Your task to perform on an android device: turn on sleep mode Image 0: 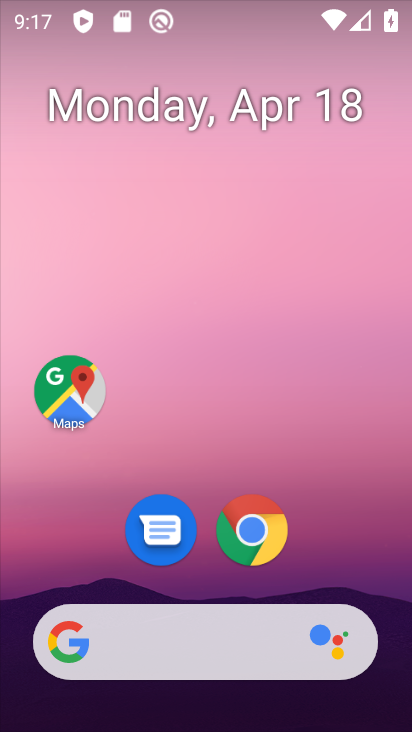
Step 0: drag from (385, 591) to (399, 97)
Your task to perform on an android device: turn on sleep mode Image 1: 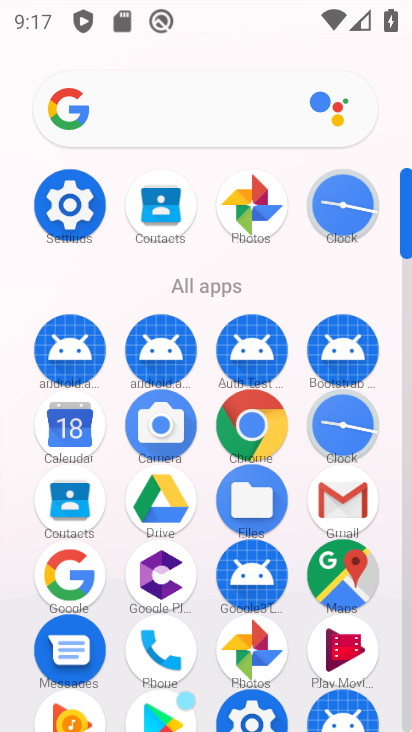
Step 1: click (77, 209)
Your task to perform on an android device: turn on sleep mode Image 2: 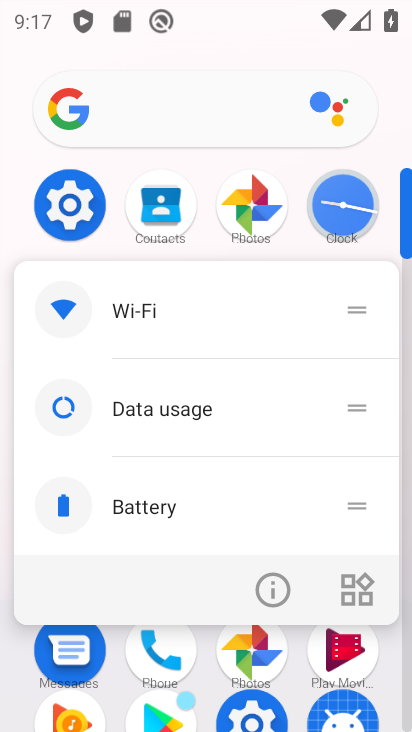
Step 2: click (80, 198)
Your task to perform on an android device: turn on sleep mode Image 3: 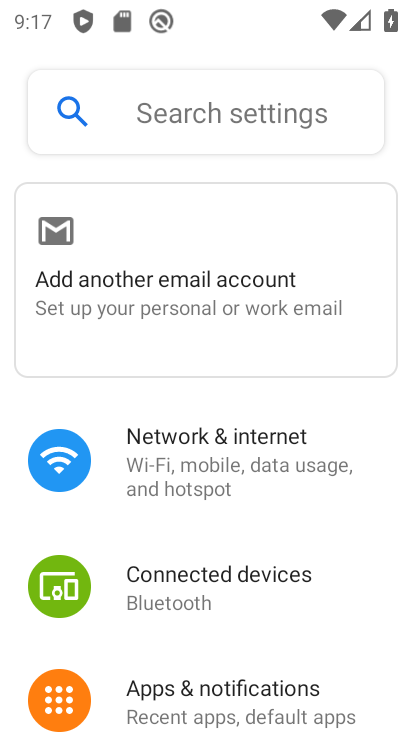
Step 3: drag from (379, 663) to (364, 311)
Your task to perform on an android device: turn on sleep mode Image 4: 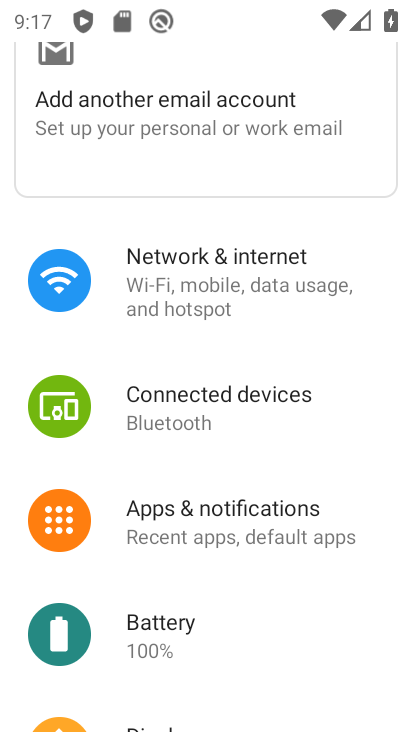
Step 4: drag from (397, 626) to (400, 376)
Your task to perform on an android device: turn on sleep mode Image 5: 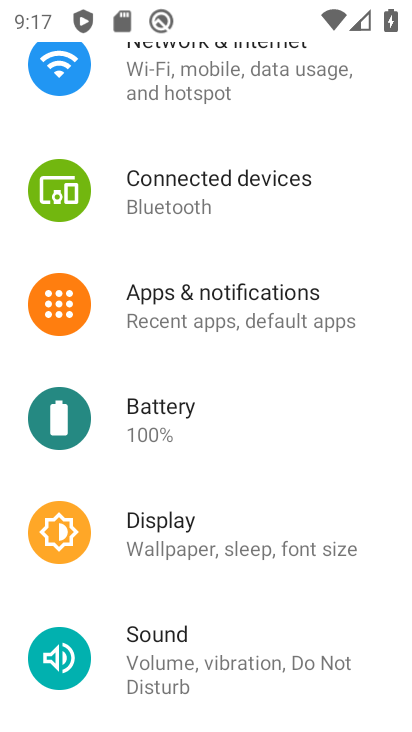
Step 5: click (148, 548)
Your task to perform on an android device: turn on sleep mode Image 6: 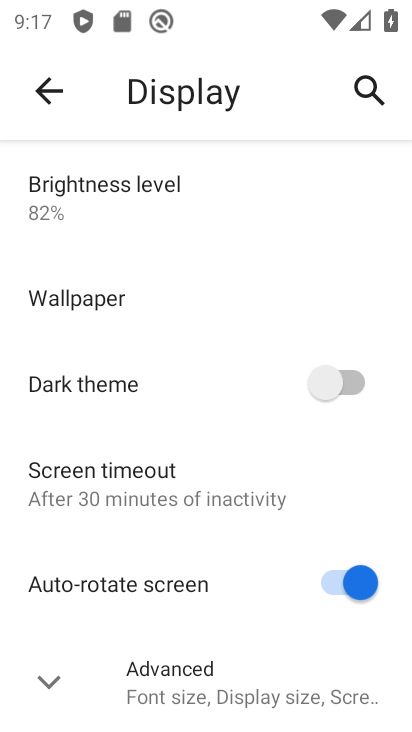
Step 6: drag from (91, 582) to (71, 307)
Your task to perform on an android device: turn on sleep mode Image 7: 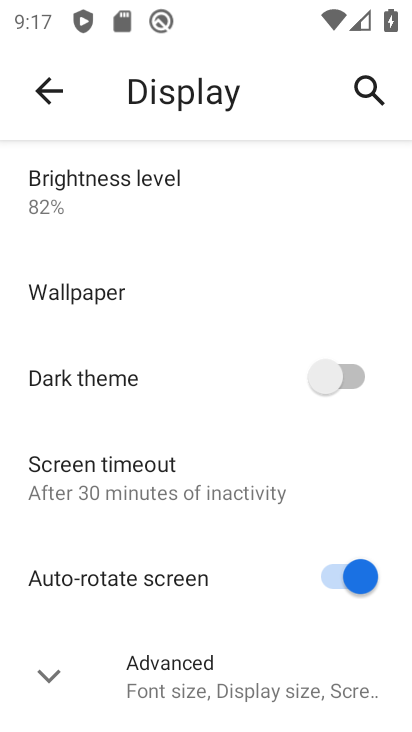
Step 7: click (42, 677)
Your task to perform on an android device: turn on sleep mode Image 8: 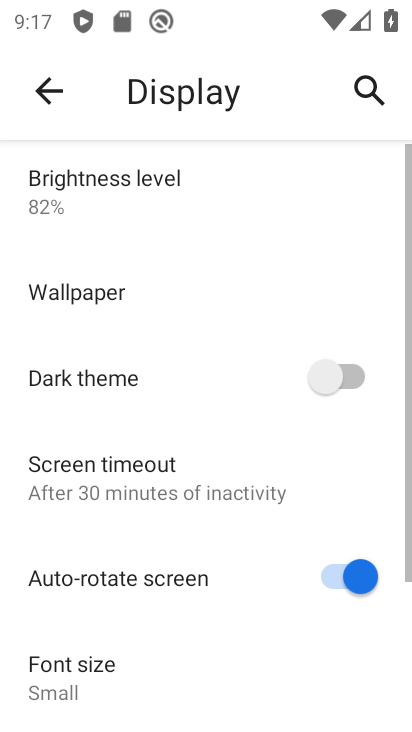
Step 8: task complete